Your task to perform on an android device: Open the stopwatch Image 0: 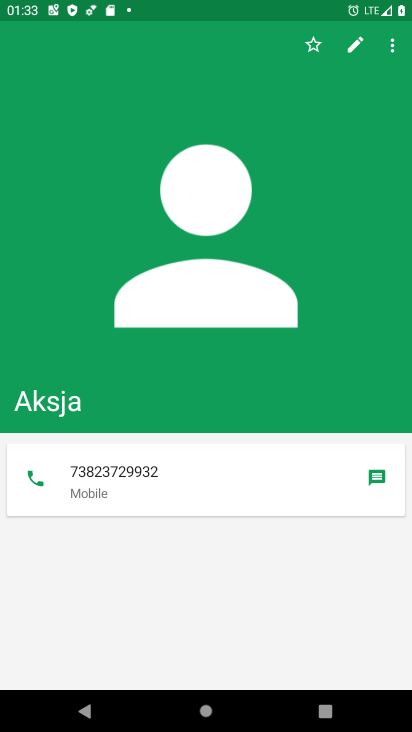
Step 0: drag from (226, 655) to (217, 399)
Your task to perform on an android device: Open the stopwatch Image 1: 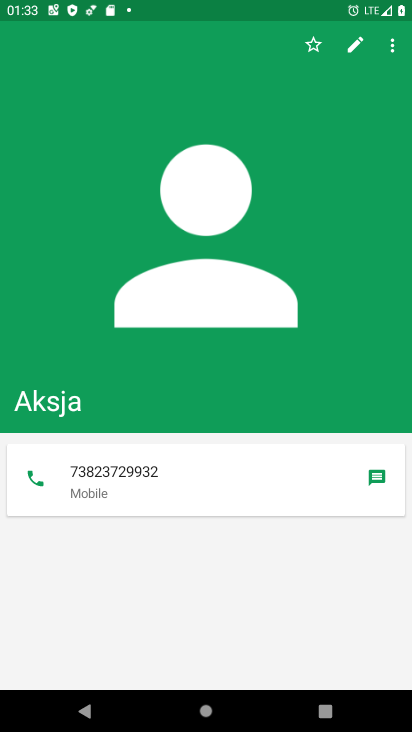
Step 1: press home button
Your task to perform on an android device: Open the stopwatch Image 2: 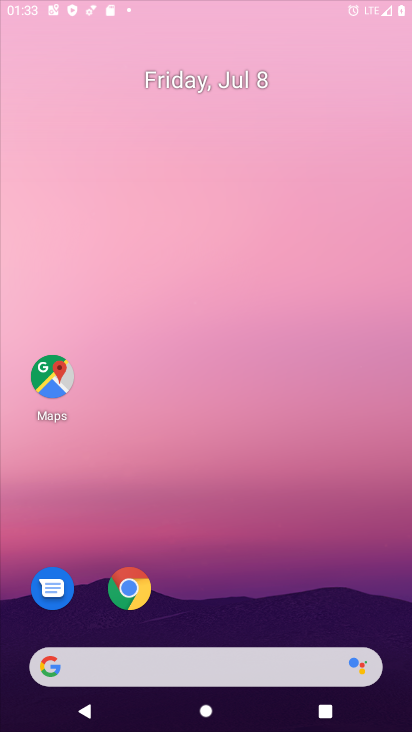
Step 2: drag from (190, 550) to (246, 0)
Your task to perform on an android device: Open the stopwatch Image 3: 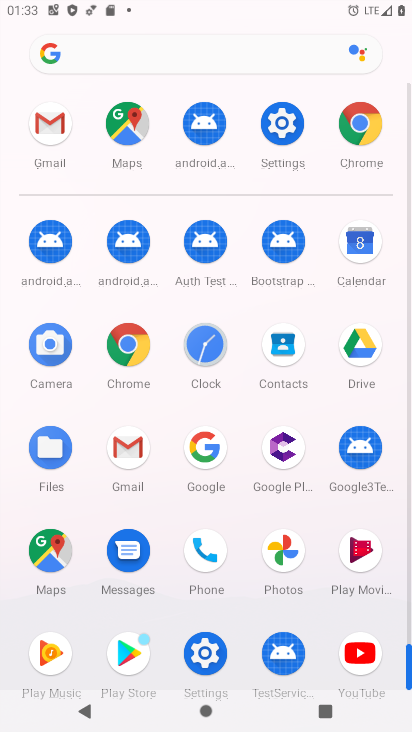
Step 3: click (204, 340)
Your task to perform on an android device: Open the stopwatch Image 4: 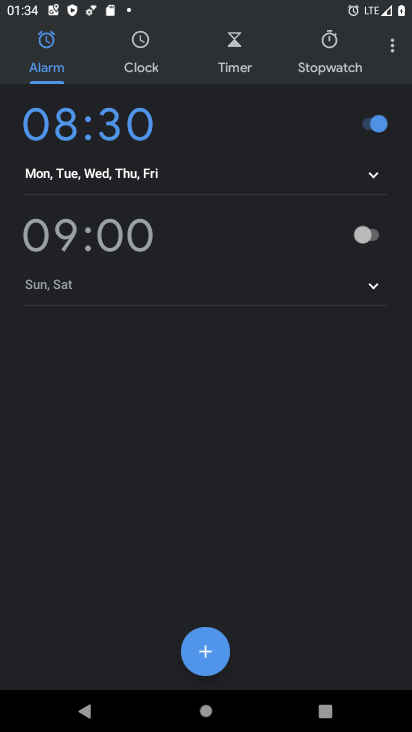
Step 4: drag from (249, 417) to (281, 202)
Your task to perform on an android device: Open the stopwatch Image 5: 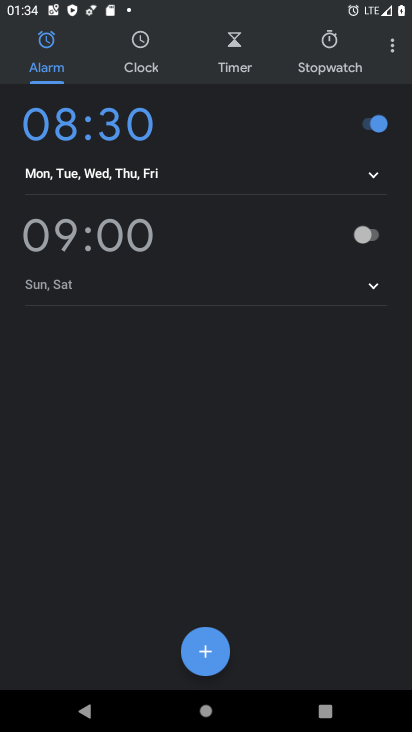
Step 5: click (268, 32)
Your task to perform on an android device: Open the stopwatch Image 6: 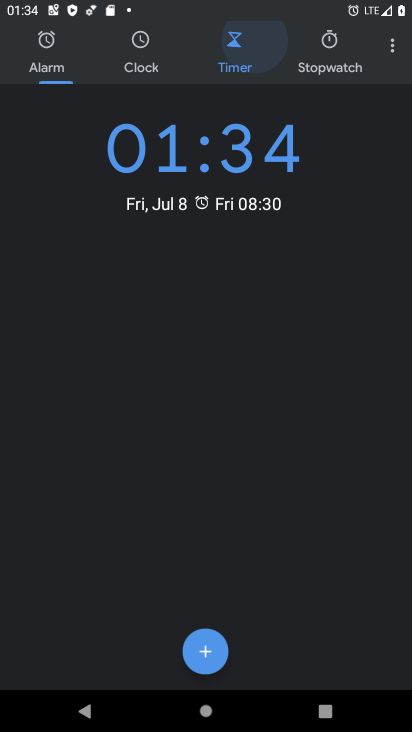
Step 6: click (340, 44)
Your task to perform on an android device: Open the stopwatch Image 7: 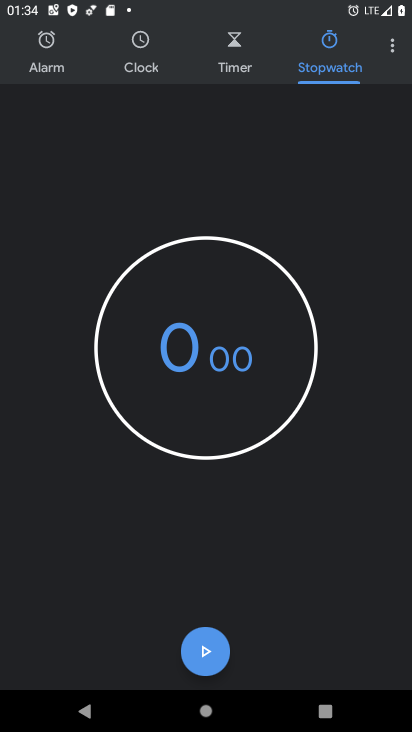
Step 7: click (208, 645)
Your task to perform on an android device: Open the stopwatch Image 8: 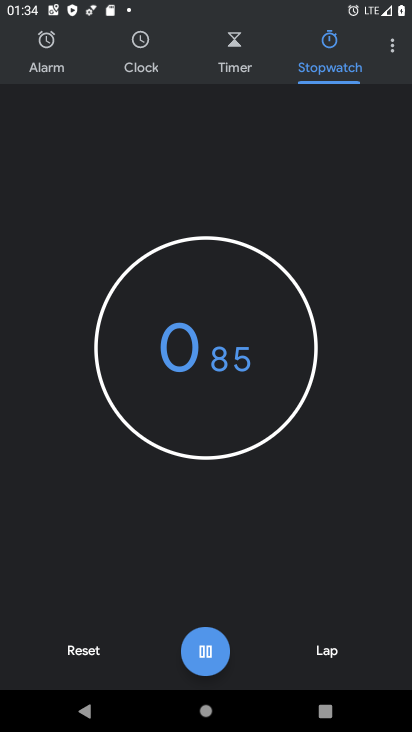
Step 8: task complete